Your task to perform on an android device: Open calendar and show me the first week of next month Image 0: 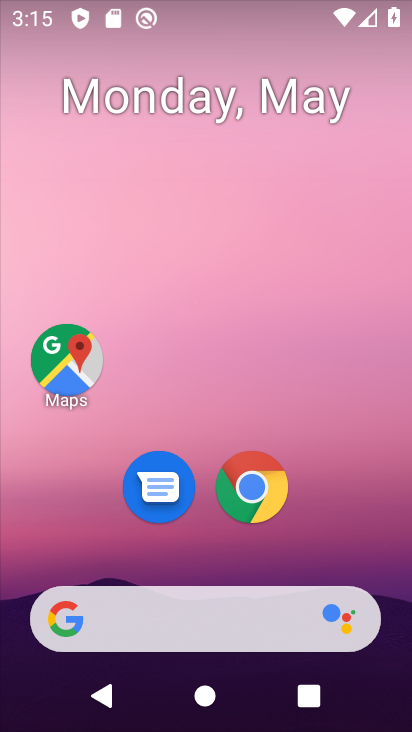
Step 0: click (142, 572)
Your task to perform on an android device: Open calendar and show me the first week of next month Image 1: 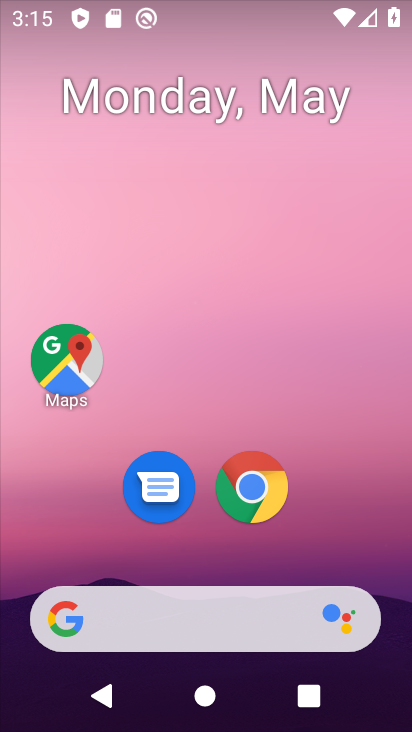
Step 1: drag from (143, 588) to (156, 143)
Your task to perform on an android device: Open calendar and show me the first week of next month Image 2: 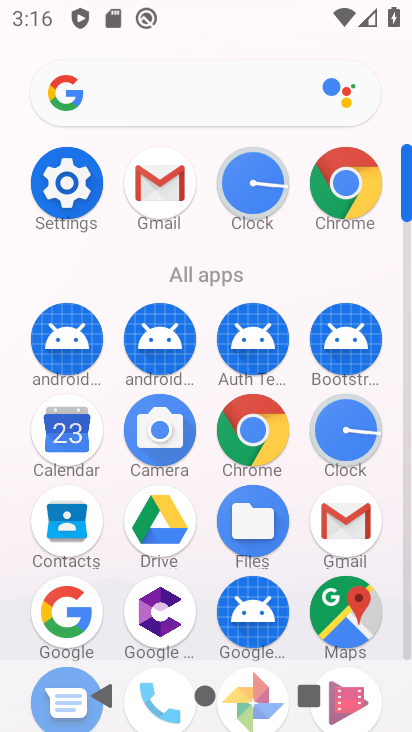
Step 2: click (65, 433)
Your task to perform on an android device: Open calendar and show me the first week of next month Image 3: 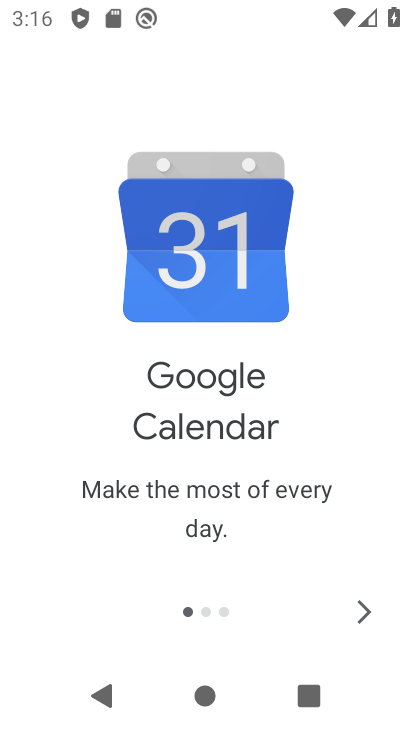
Step 3: click (361, 607)
Your task to perform on an android device: Open calendar and show me the first week of next month Image 4: 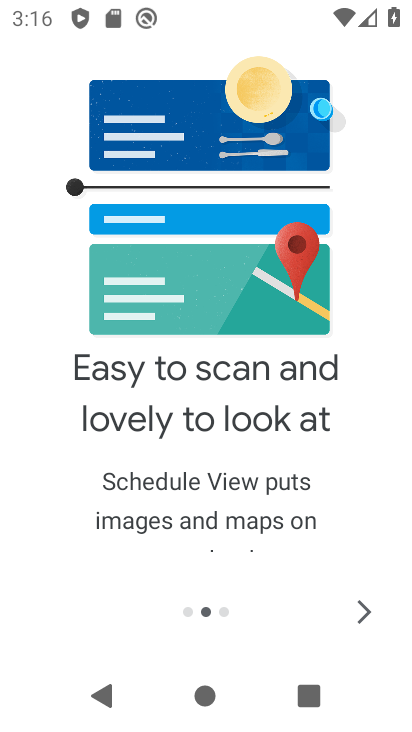
Step 4: click (361, 607)
Your task to perform on an android device: Open calendar and show me the first week of next month Image 5: 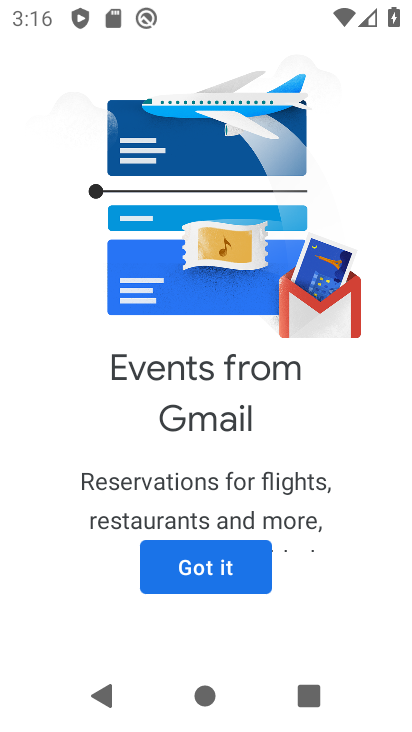
Step 5: click (252, 568)
Your task to perform on an android device: Open calendar and show me the first week of next month Image 6: 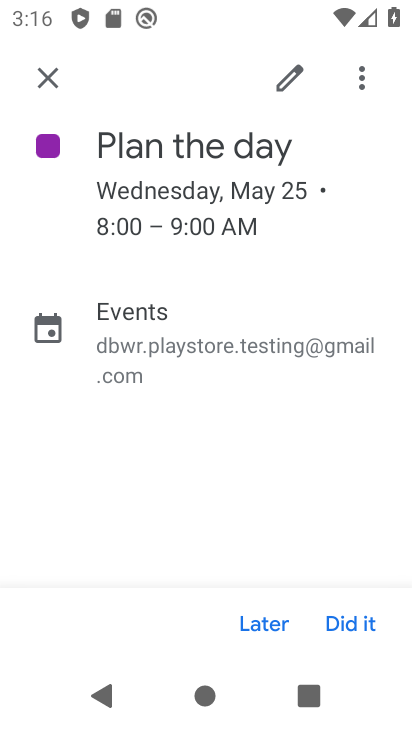
Step 6: press home button
Your task to perform on an android device: Open calendar and show me the first week of next month Image 7: 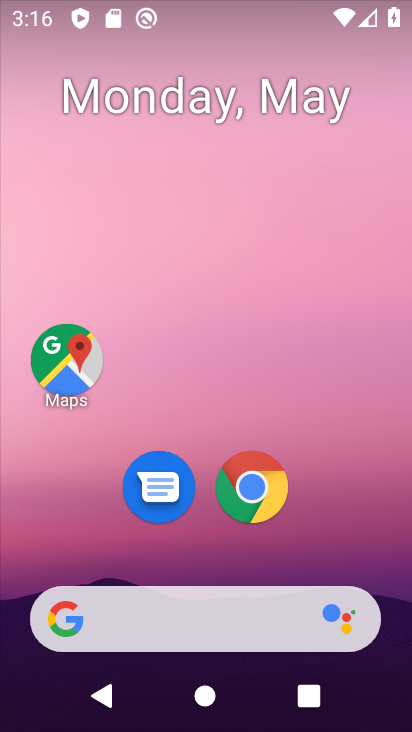
Step 7: drag from (226, 586) to (210, 93)
Your task to perform on an android device: Open calendar and show me the first week of next month Image 8: 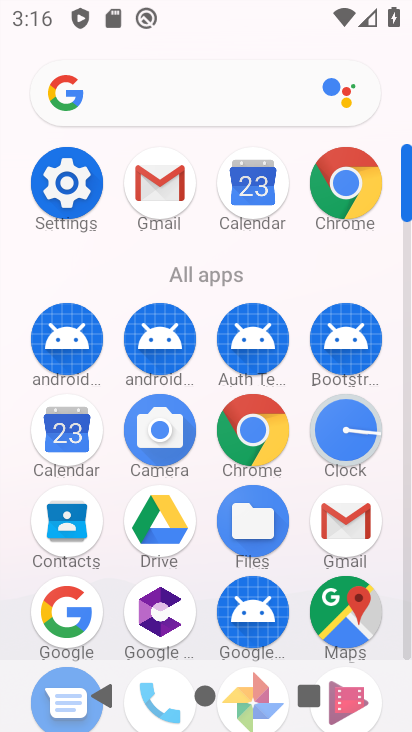
Step 8: click (233, 203)
Your task to perform on an android device: Open calendar and show me the first week of next month Image 9: 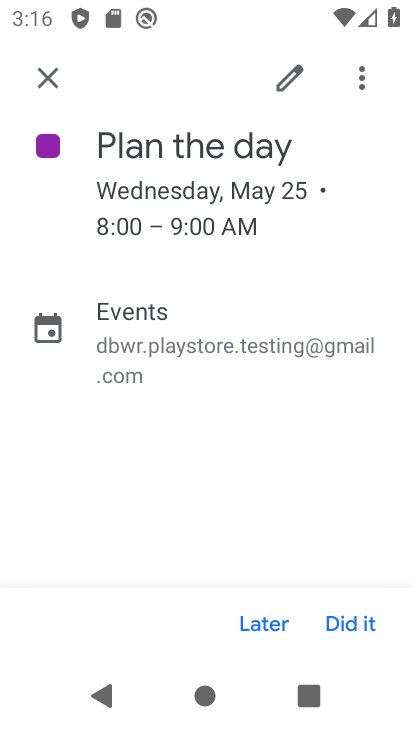
Step 9: click (31, 87)
Your task to perform on an android device: Open calendar and show me the first week of next month Image 10: 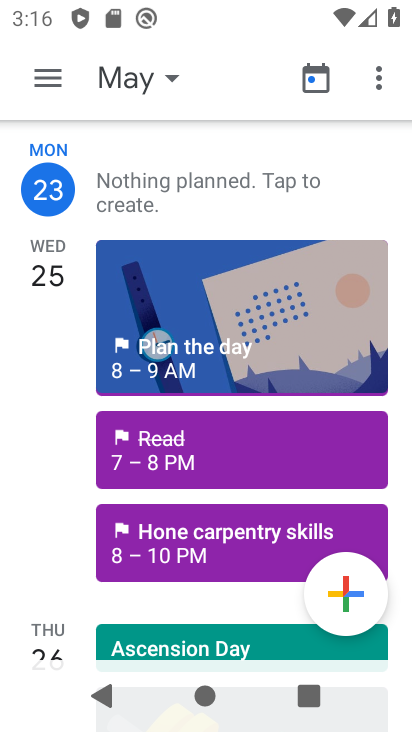
Step 10: click (142, 62)
Your task to perform on an android device: Open calendar and show me the first week of next month Image 11: 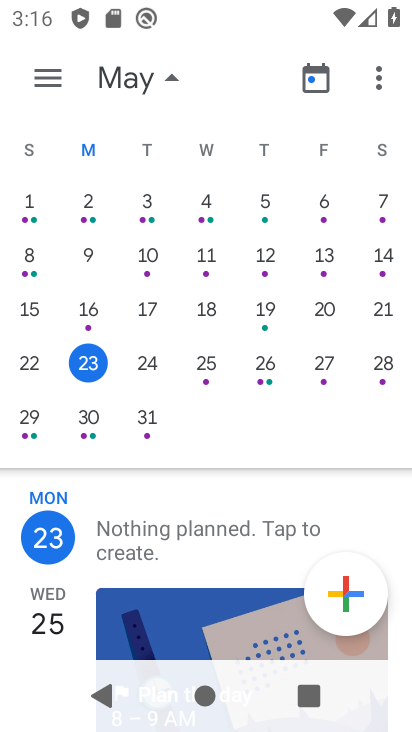
Step 11: task complete